Your task to perform on an android device: open a new tab in the chrome app Image 0: 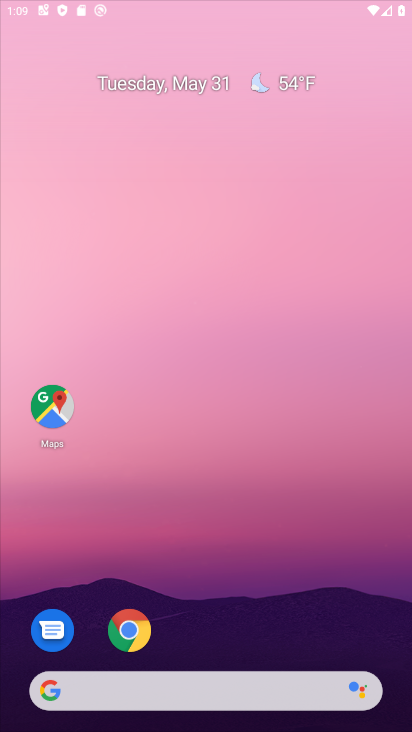
Step 0: click (133, 628)
Your task to perform on an android device: open a new tab in the chrome app Image 1: 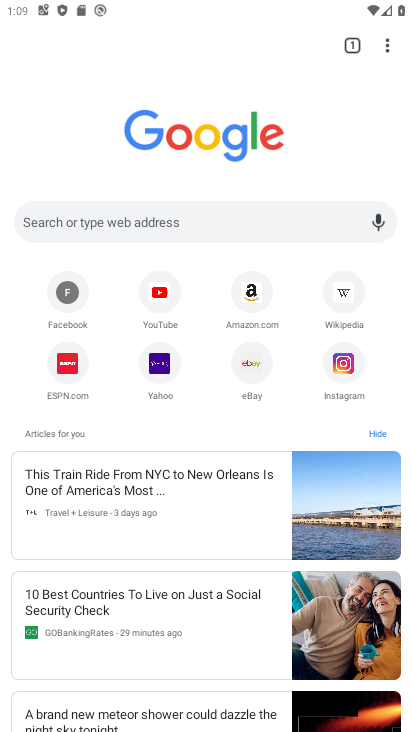
Step 1: click (350, 41)
Your task to perform on an android device: open a new tab in the chrome app Image 2: 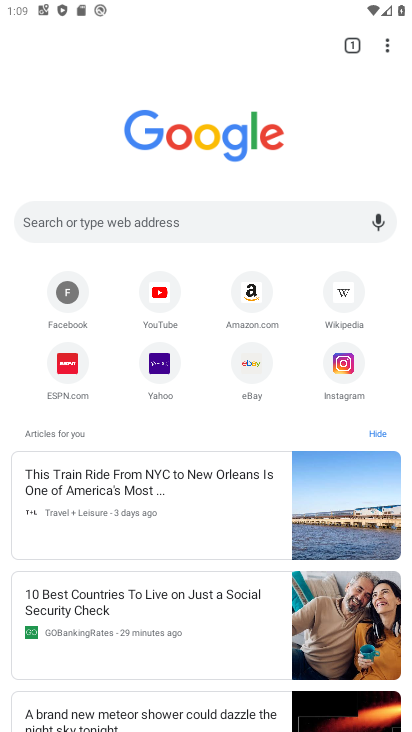
Step 2: click (351, 49)
Your task to perform on an android device: open a new tab in the chrome app Image 3: 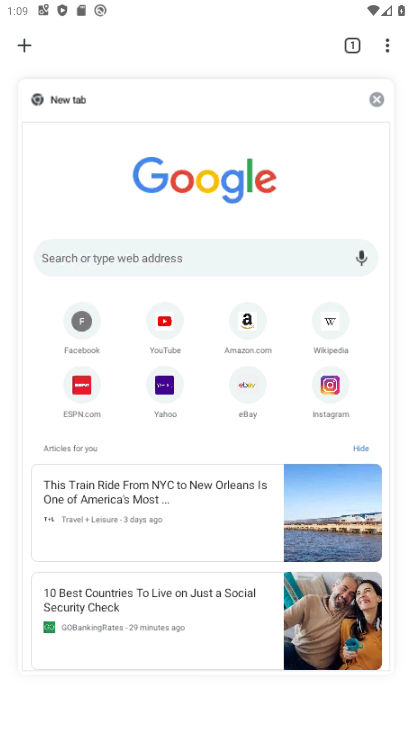
Step 3: click (34, 44)
Your task to perform on an android device: open a new tab in the chrome app Image 4: 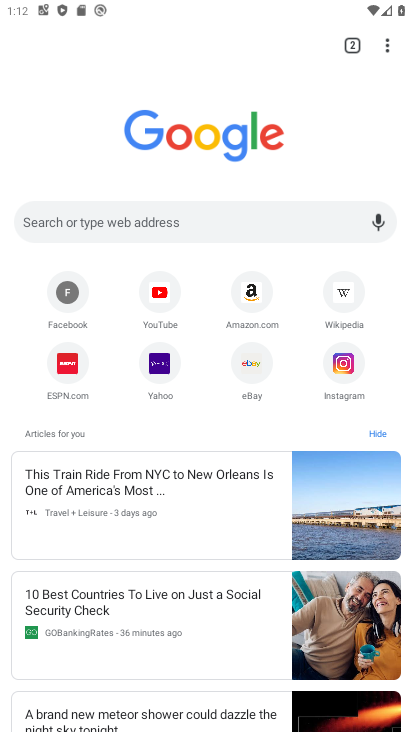
Step 4: task complete